Your task to perform on an android device: Open Reddit.com Image 0: 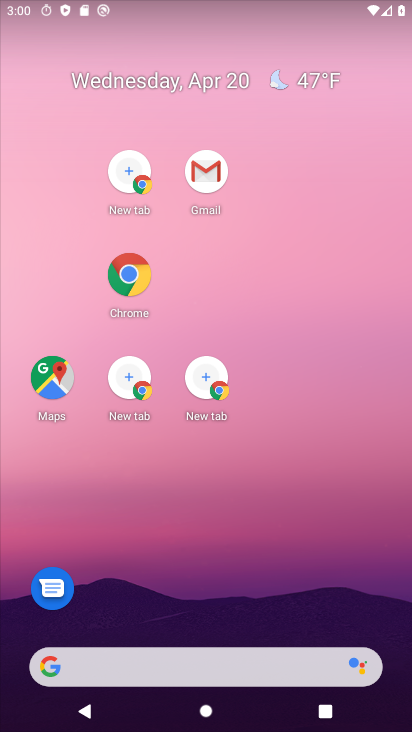
Step 0: drag from (266, 603) to (122, 265)
Your task to perform on an android device: Open Reddit.com Image 1: 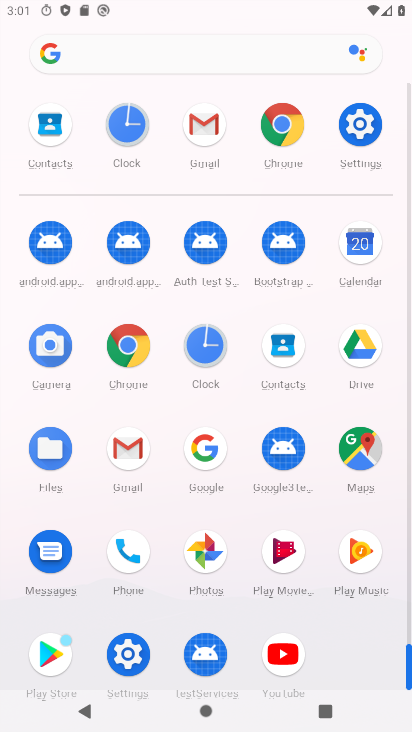
Step 1: click (270, 126)
Your task to perform on an android device: Open Reddit.com Image 2: 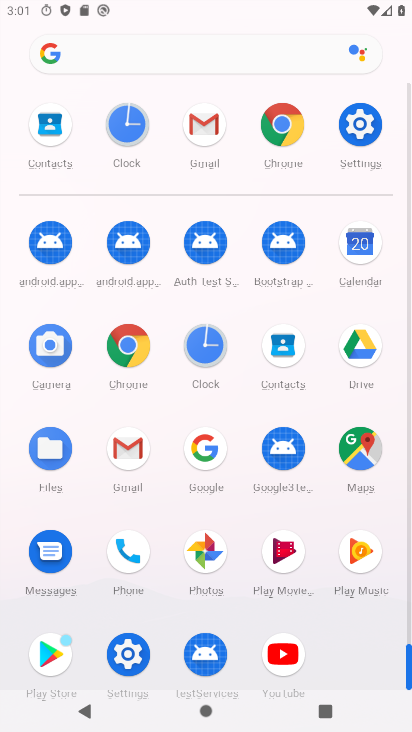
Step 2: click (270, 126)
Your task to perform on an android device: Open Reddit.com Image 3: 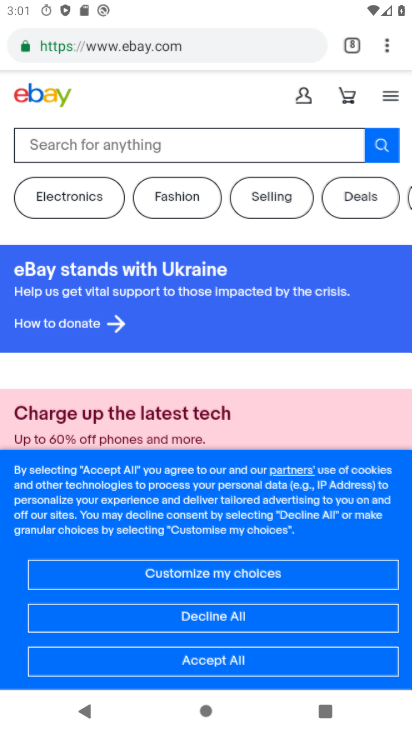
Step 3: click (270, 126)
Your task to perform on an android device: Open Reddit.com Image 4: 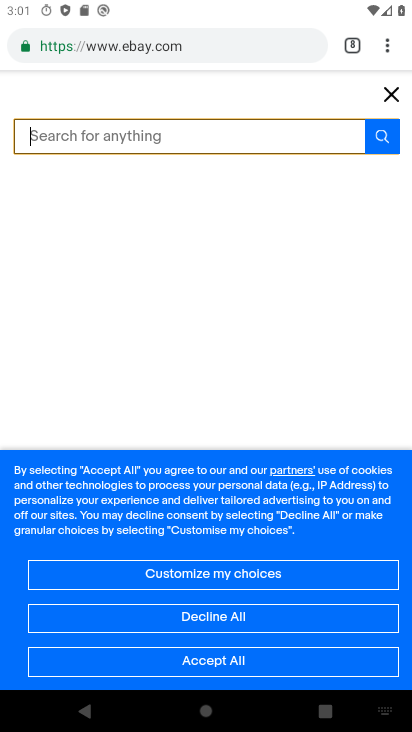
Step 4: drag from (384, 38) to (321, 155)
Your task to perform on an android device: Open Reddit.com Image 5: 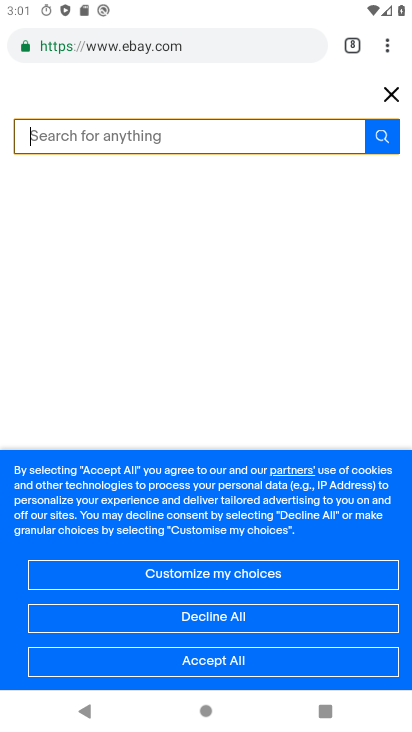
Step 5: click (321, 155)
Your task to perform on an android device: Open Reddit.com Image 6: 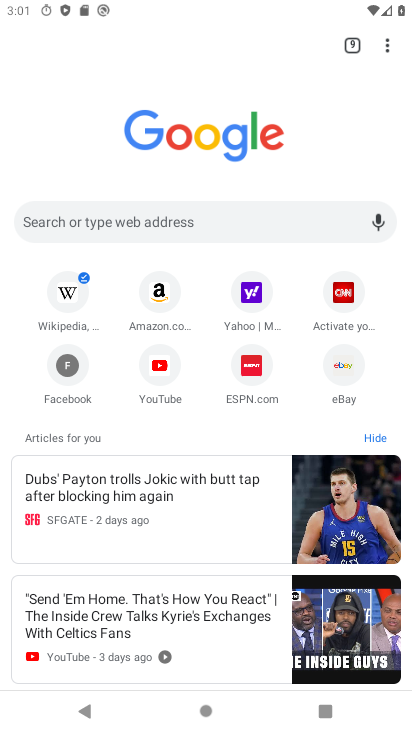
Step 6: click (321, 155)
Your task to perform on an android device: Open Reddit.com Image 7: 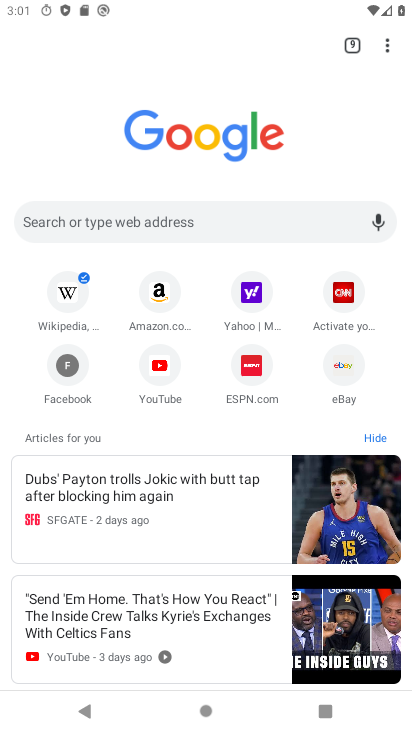
Step 7: click (321, 155)
Your task to perform on an android device: Open Reddit.com Image 8: 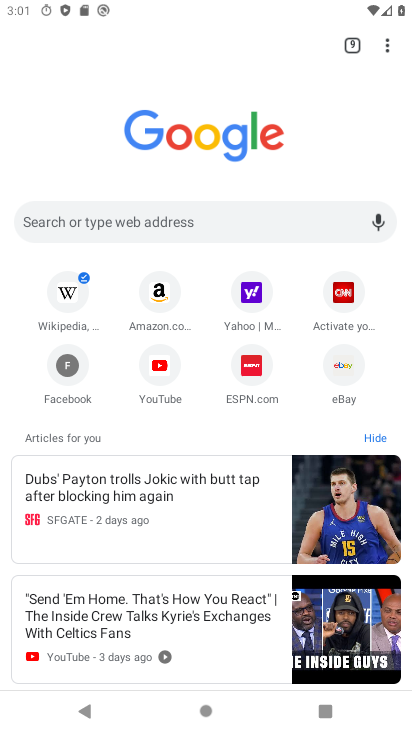
Step 8: click (47, 220)
Your task to perform on an android device: Open Reddit.com Image 9: 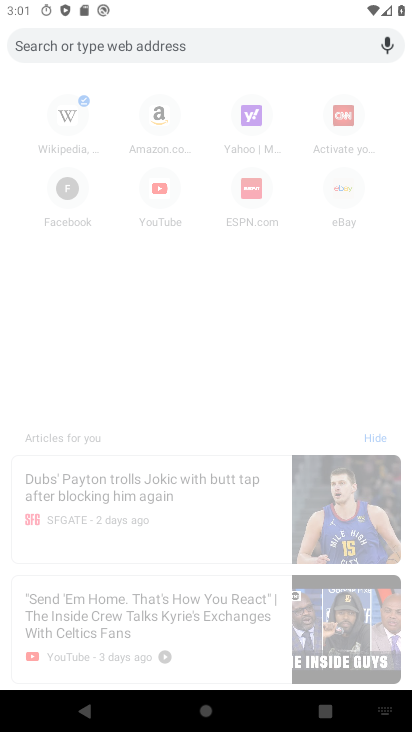
Step 9: type "WWW. REBBIT.COM"
Your task to perform on an android device: Open Reddit.com Image 10: 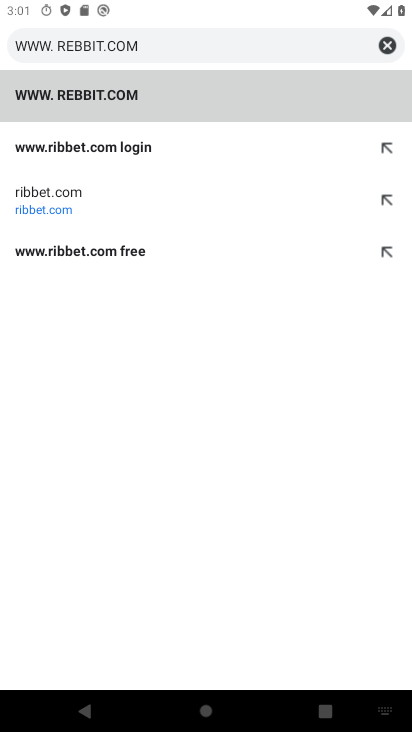
Step 10: click (368, 343)
Your task to perform on an android device: Open Reddit.com Image 11: 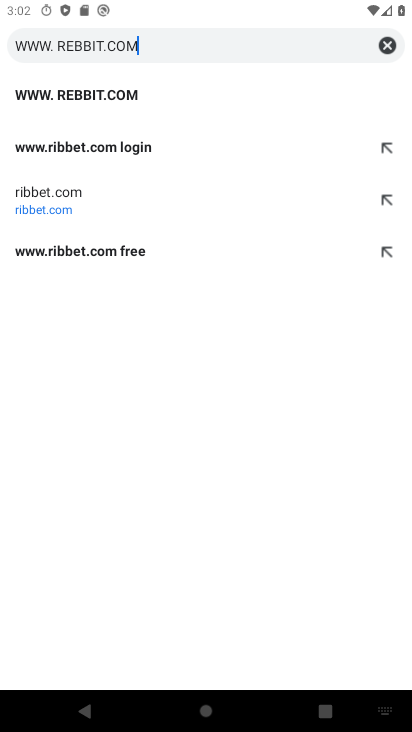
Step 11: click (45, 185)
Your task to perform on an android device: Open Reddit.com Image 12: 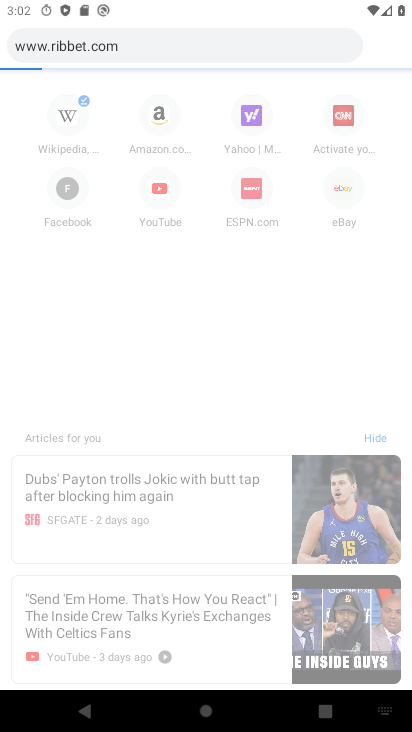
Step 12: click (40, 205)
Your task to perform on an android device: Open Reddit.com Image 13: 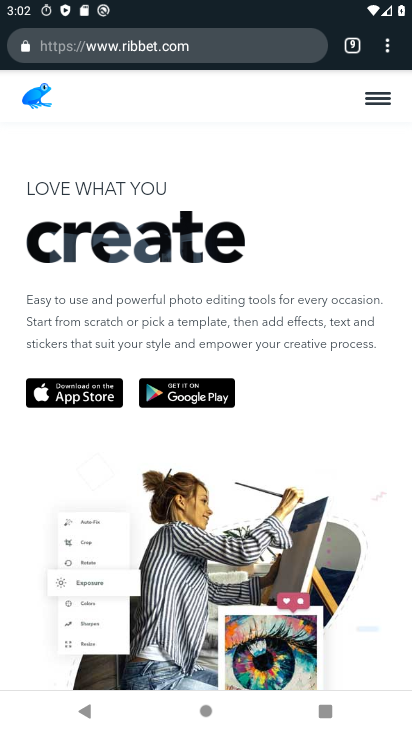
Step 13: task complete